Your task to perform on an android device: Turn off the flashlight Image 0: 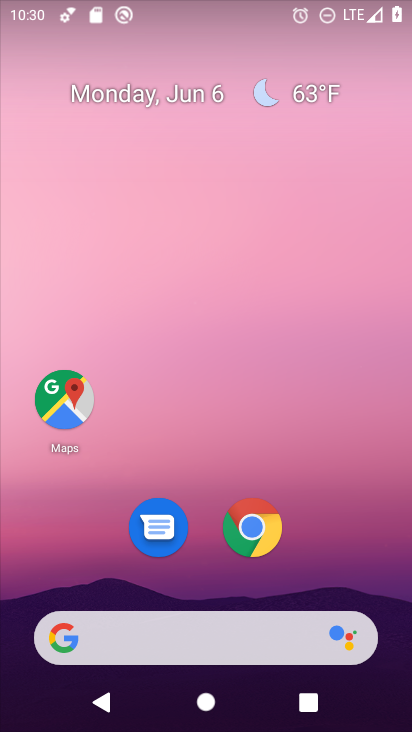
Step 0: drag from (277, 7) to (281, 391)
Your task to perform on an android device: Turn off the flashlight Image 1: 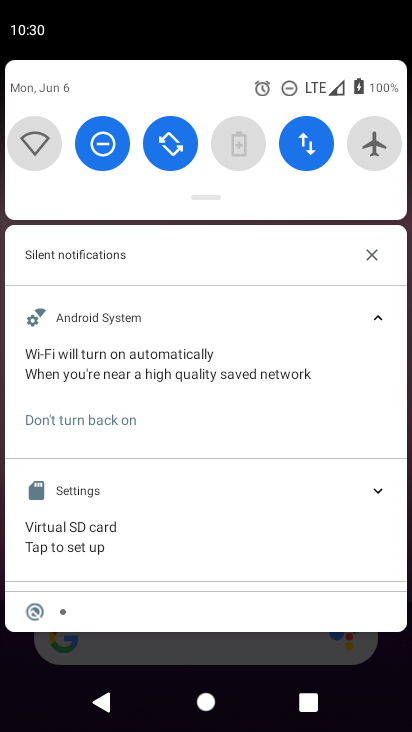
Step 1: drag from (206, 64) to (206, 358)
Your task to perform on an android device: Turn off the flashlight Image 2: 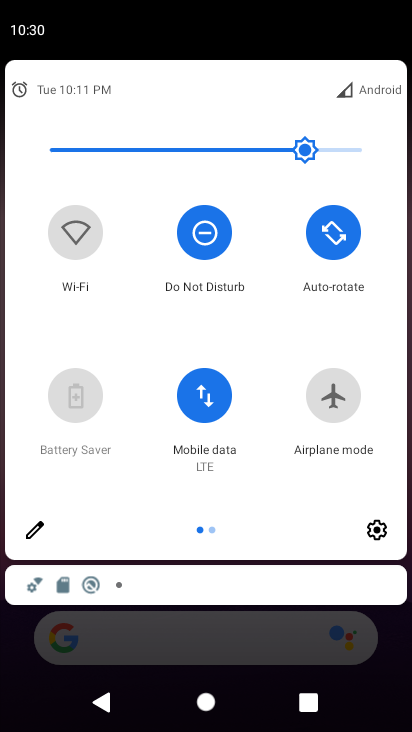
Step 2: click (29, 541)
Your task to perform on an android device: Turn off the flashlight Image 3: 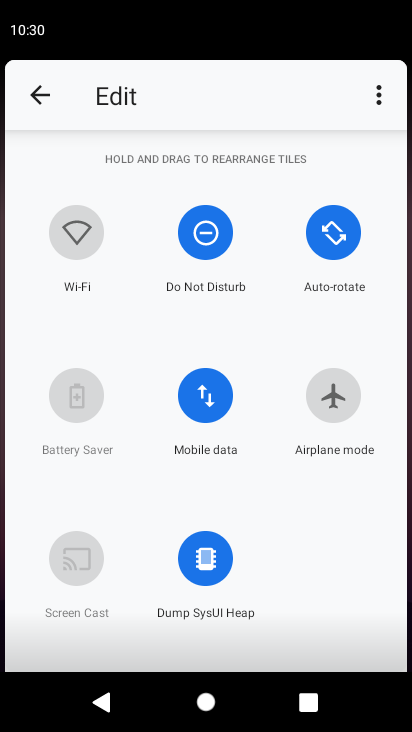
Step 3: task complete